Your task to perform on an android device: Open the Play Movies app and select the watchlist tab. Image 0: 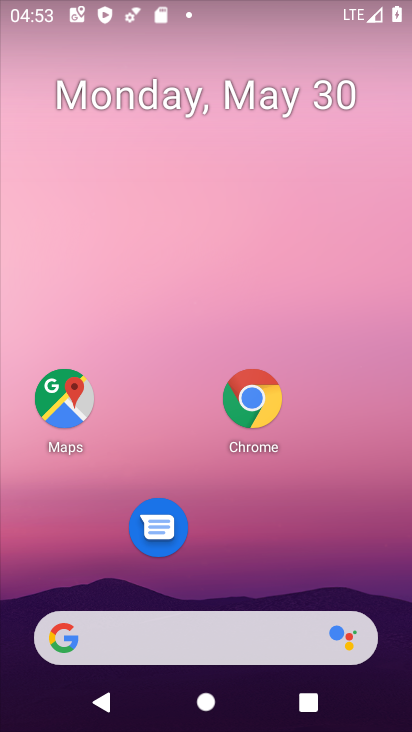
Step 0: drag from (236, 713) to (229, 14)
Your task to perform on an android device: Open the Play Movies app and select the watchlist tab. Image 1: 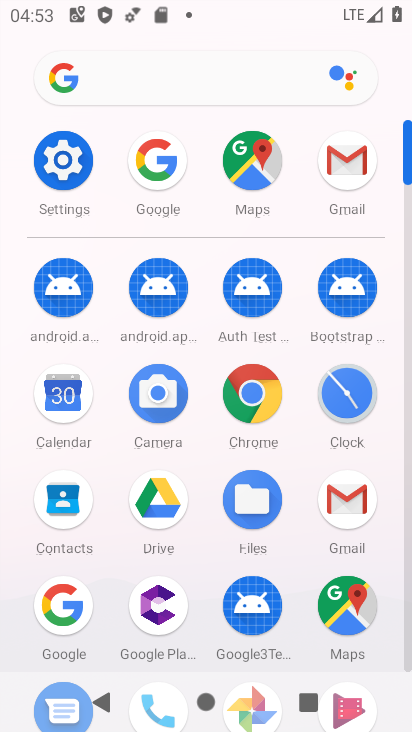
Step 1: drag from (294, 644) to (291, 225)
Your task to perform on an android device: Open the Play Movies app and select the watchlist tab. Image 2: 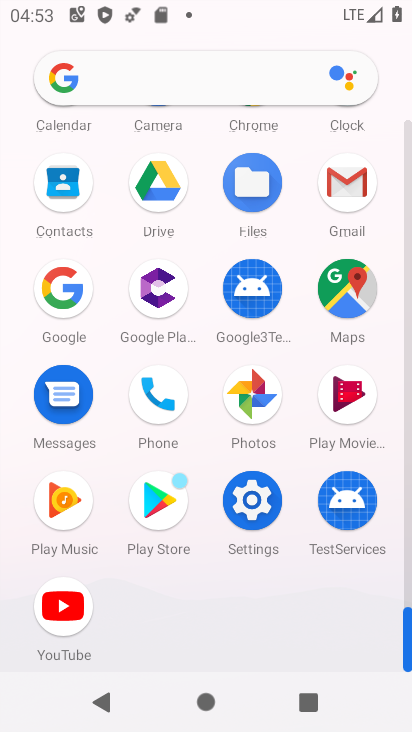
Step 2: click (352, 409)
Your task to perform on an android device: Open the Play Movies app and select the watchlist tab. Image 3: 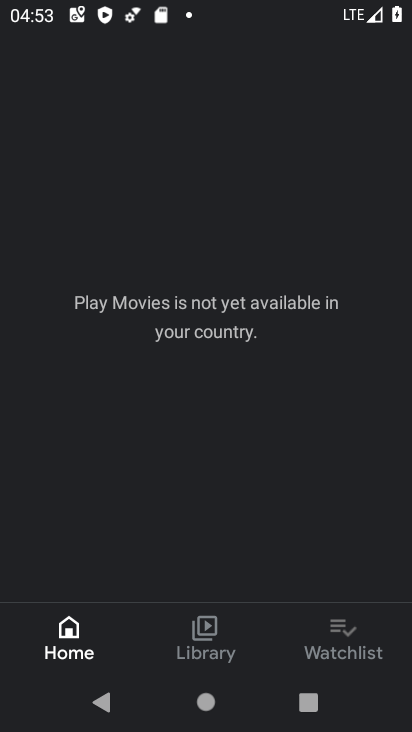
Step 3: click (330, 639)
Your task to perform on an android device: Open the Play Movies app and select the watchlist tab. Image 4: 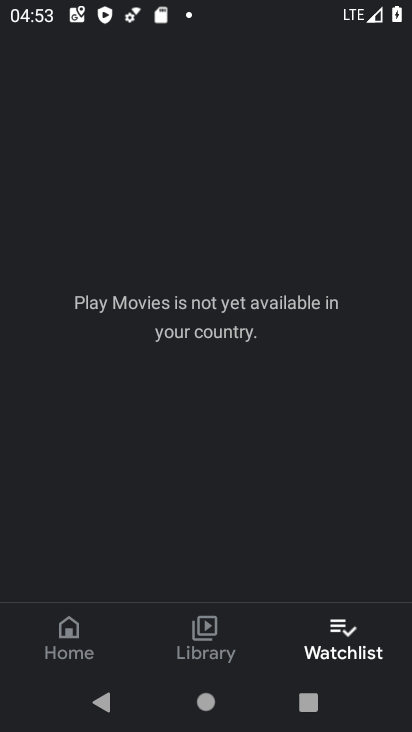
Step 4: task complete